Your task to perform on an android device: see tabs open on other devices in the chrome app Image 0: 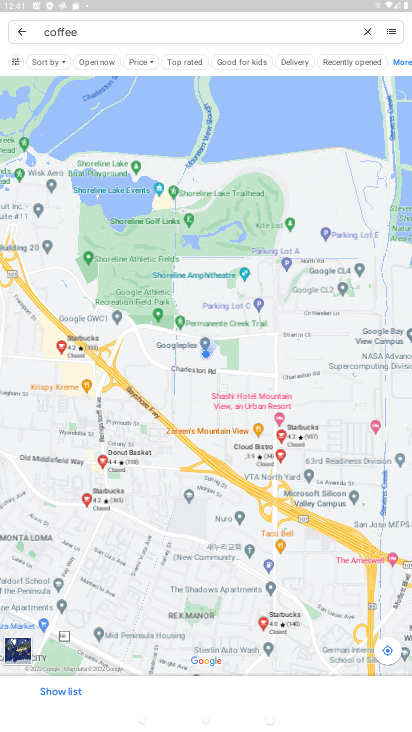
Step 0: press home button
Your task to perform on an android device: see tabs open on other devices in the chrome app Image 1: 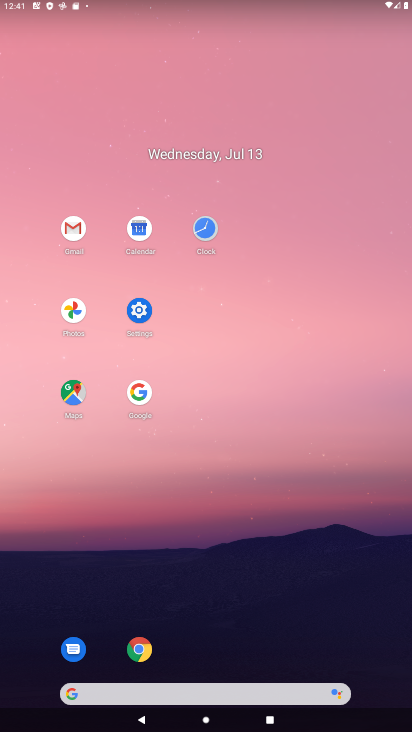
Step 1: click (131, 645)
Your task to perform on an android device: see tabs open on other devices in the chrome app Image 2: 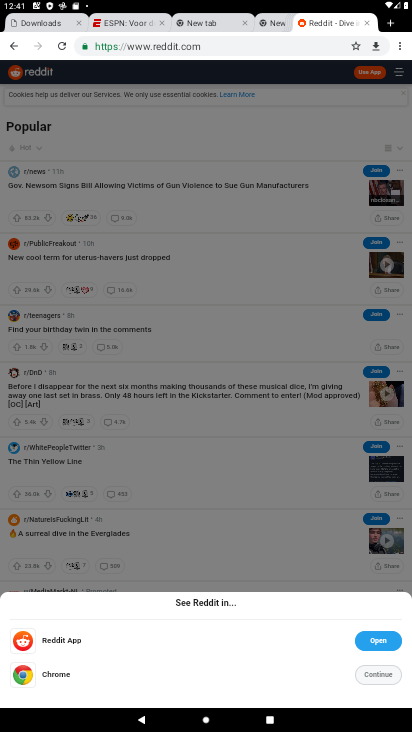
Step 2: click (393, 43)
Your task to perform on an android device: see tabs open on other devices in the chrome app Image 3: 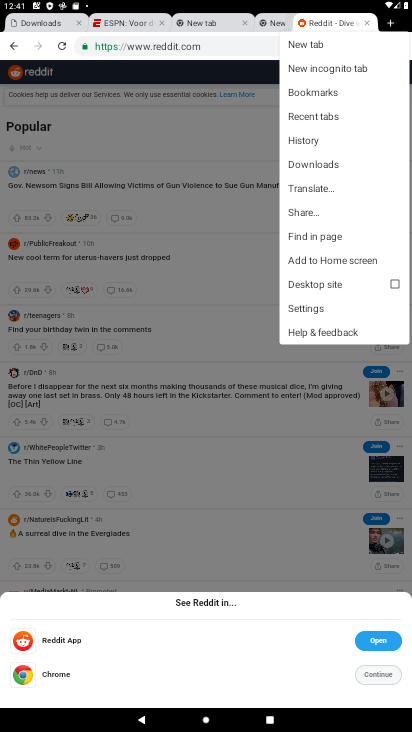
Step 3: click (313, 116)
Your task to perform on an android device: see tabs open on other devices in the chrome app Image 4: 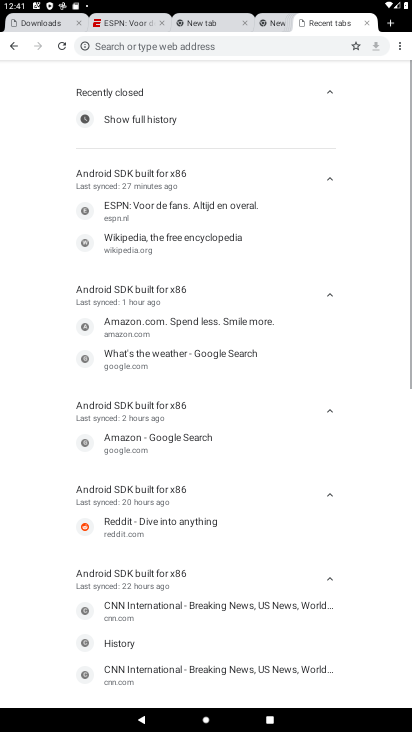
Step 4: task complete